Your task to perform on an android device: Open Maps and search for coffee Image 0: 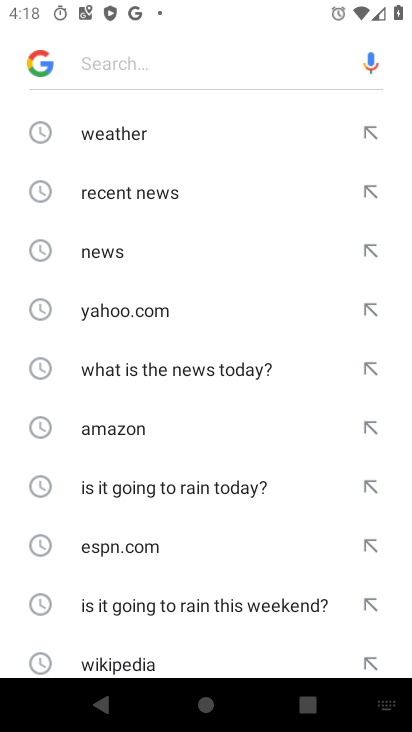
Step 0: press back button
Your task to perform on an android device: Open Maps and search for coffee Image 1: 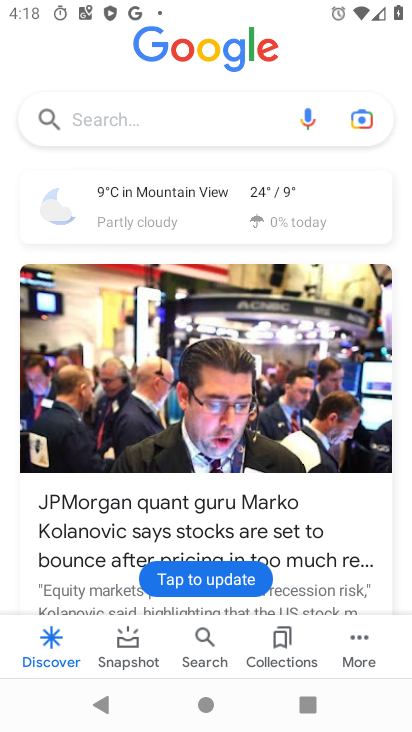
Step 1: press back button
Your task to perform on an android device: Open Maps and search for coffee Image 2: 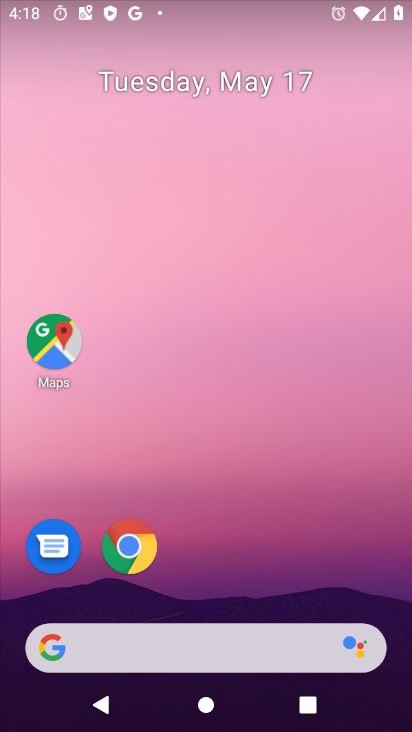
Step 2: click (64, 347)
Your task to perform on an android device: Open Maps and search for coffee Image 3: 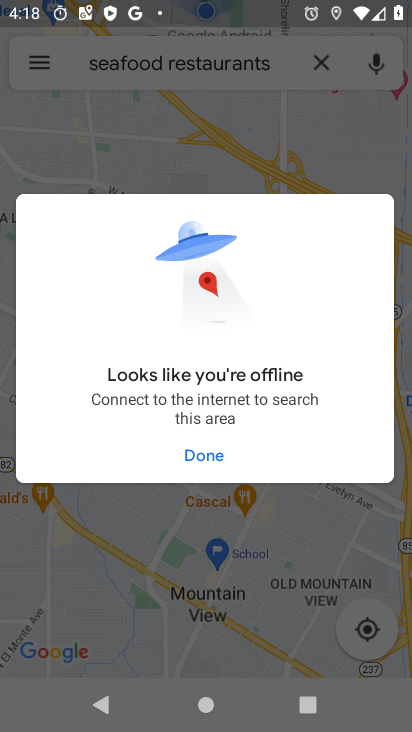
Step 3: press home button
Your task to perform on an android device: Open Maps and search for coffee Image 4: 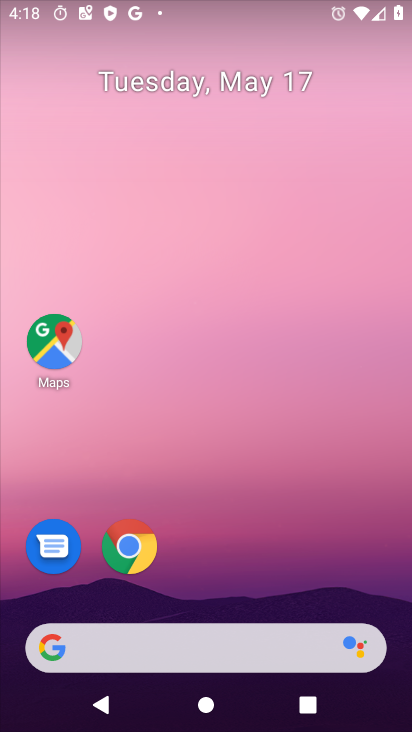
Step 4: click (55, 323)
Your task to perform on an android device: Open Maps and search for coffee Image 5: 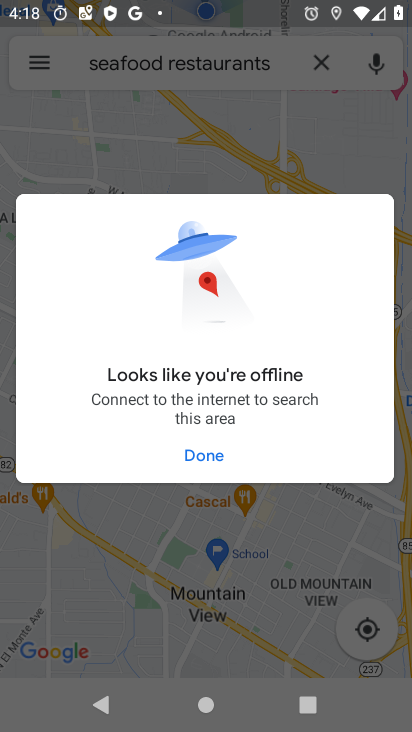
Step 5: click (184, 450)
Your task to perform on an android device: Open Maps and search for coffee Image 6: 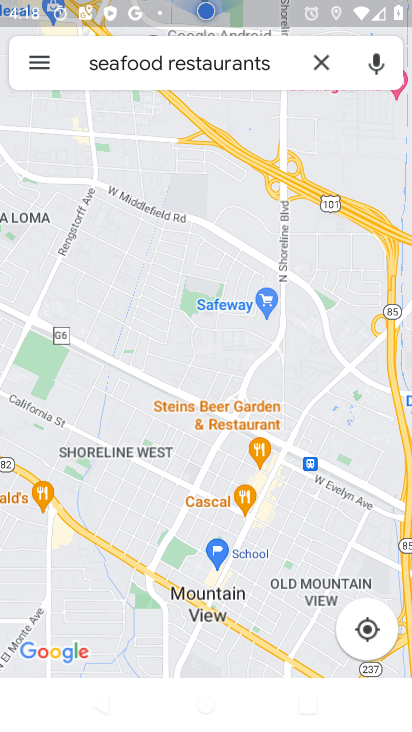
Step 6: click (316, 61)
Your task to perform on an android device: Open Maps and search for coffee Image 7: 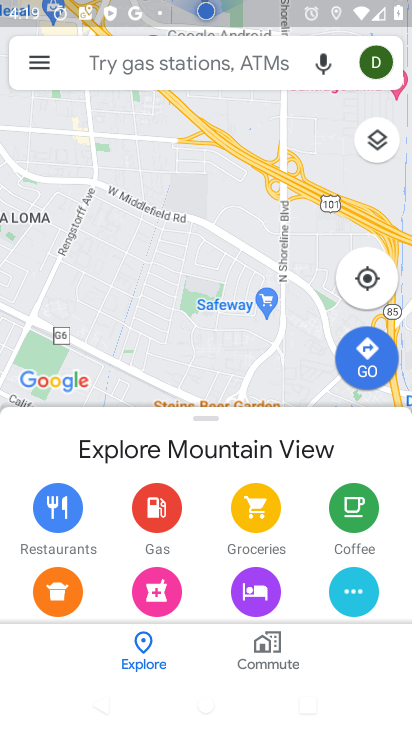
Step 7: type "coffee"
Your task to perform on an android device: Open Maps and search for coffee Image 8: 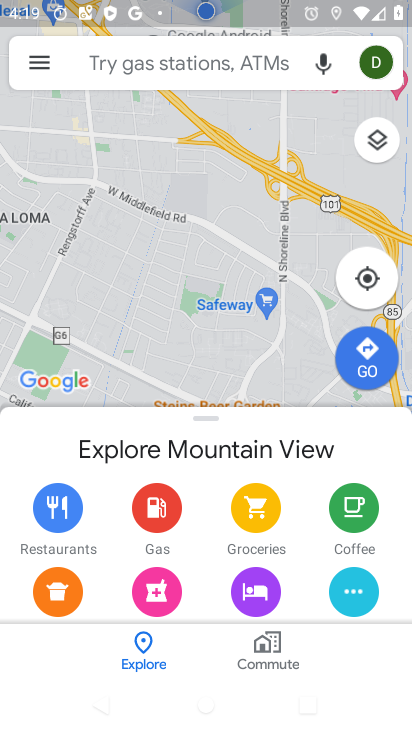
Step 8: task complete